Your task to perform on an android device: turn on notifications settings in the gmail app Image 0: 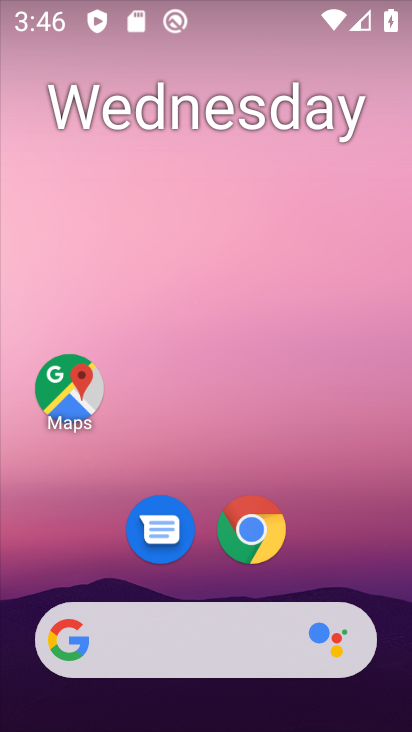
Step 0: drag from (350, 553) to (370, 176)
Your task to perform on an android device: turn on notifications settings in the gmail app Image 1: 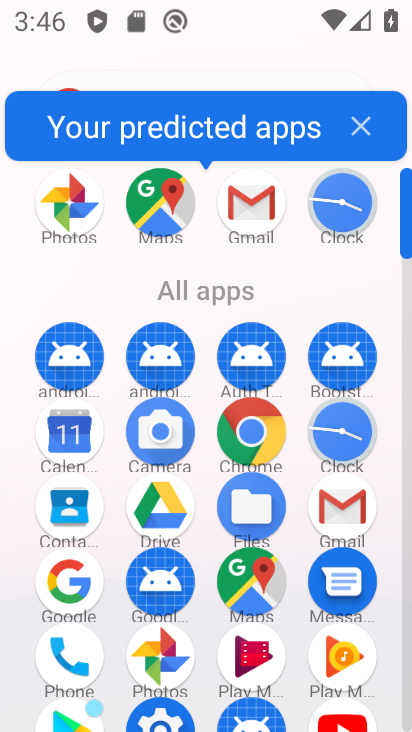
Step 1: click (345, 509)
Your task to perform on an android device: turn on notifications settings in the gmail app Image 2: 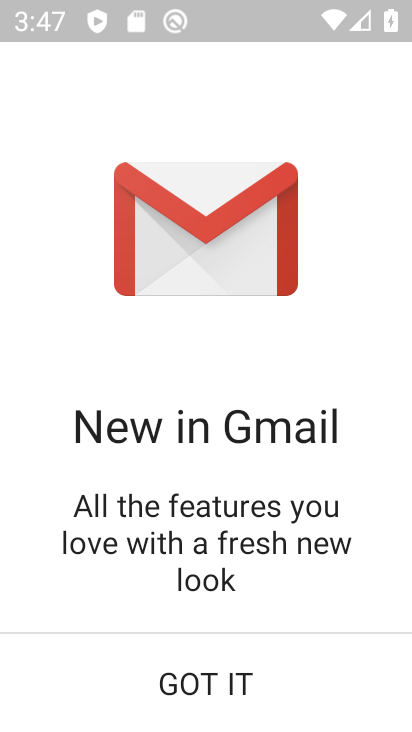
Step 2: click (242, 684)
Your task to perform on an android device: turn on notifications settings in the gmail app Image 3: 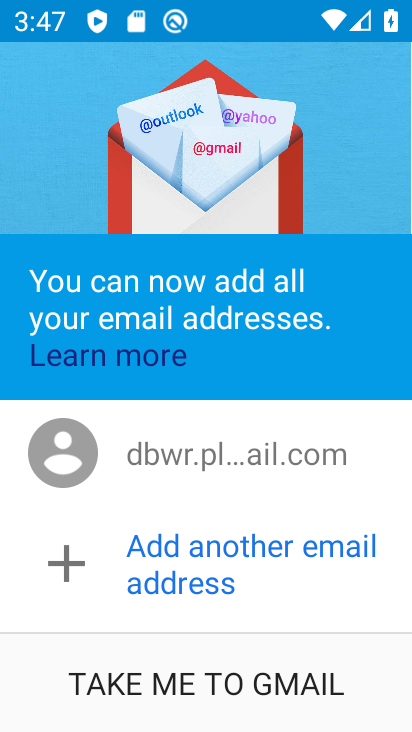
Step 3: click (238, 680)
Your task to perform on an android device: turn on notifications settings in the gmail app Image 4: 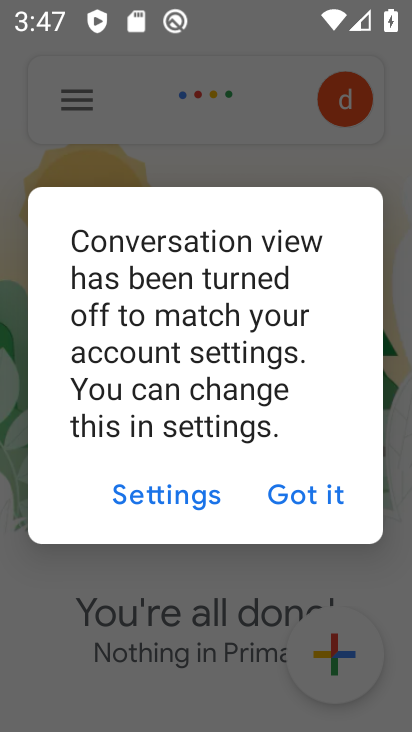
Step 4: click (327, 503)
Your task to perform on an android device: turn on notifications settings in the gmail app Image 5: 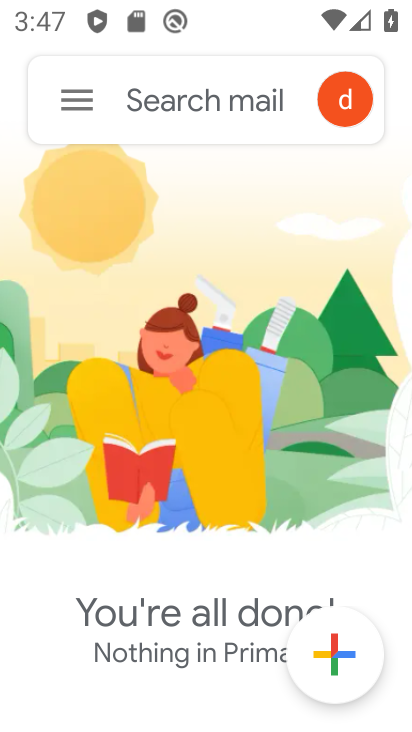
Step 5: click (77, 106)
Your task to perform on an android device: turn on notifications settings in the gmail app Image 6: 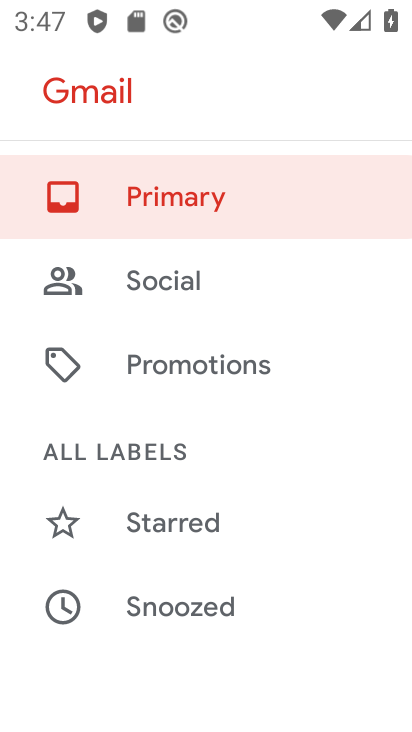
Step 6: drag from (131, 535) to (158, 202)
Your task to perform on an android device: turn on notifications settings in the gmail app Image 7: 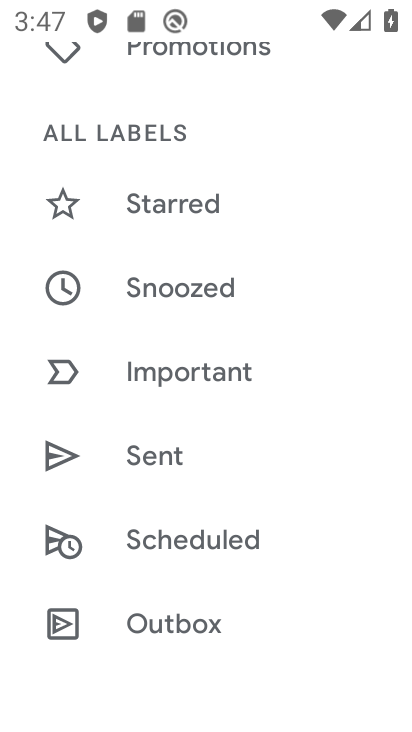
Step 7: drag from (176, 582) to (202, 248)
Your task to perform on an android device: turn on notifications settings in the gmail app Image 8: 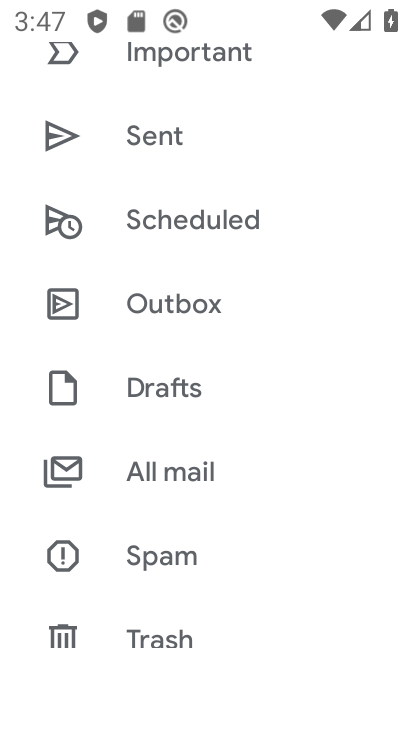
Step 8: drag from (198, 610) to (222, 270)
Your task to perform on an android device: turn on notifications settings in the gmail app Image 9: 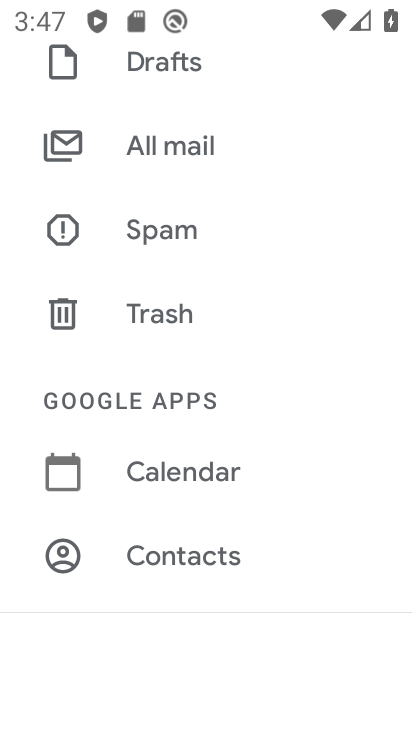
Step 9: drag from (193, 586) to (250, 214)
Your task to perform on an android device: turn on notifications settings in the gmail app Image 10: 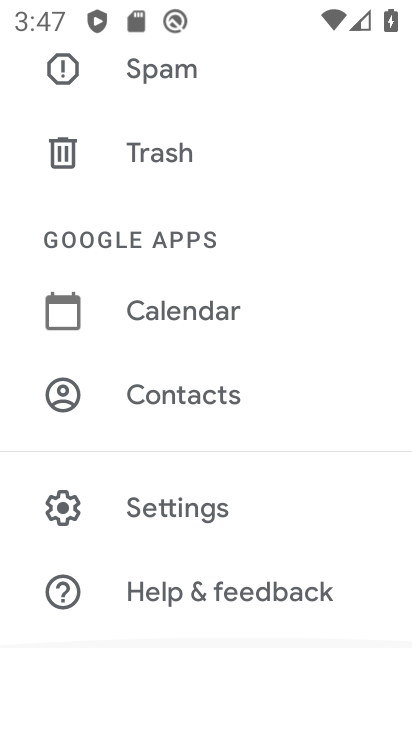
Step 10: click (182, 510)
Your task to perform on an android device: turn on notifications settings in the gmail app Image 11: 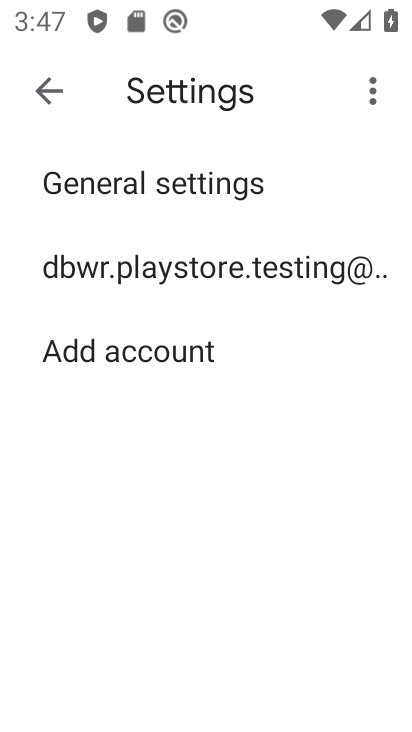
Step 11: click (190, 262)
Your task to perform on an android device: turn on notifications settings in the gmail app Image 12: 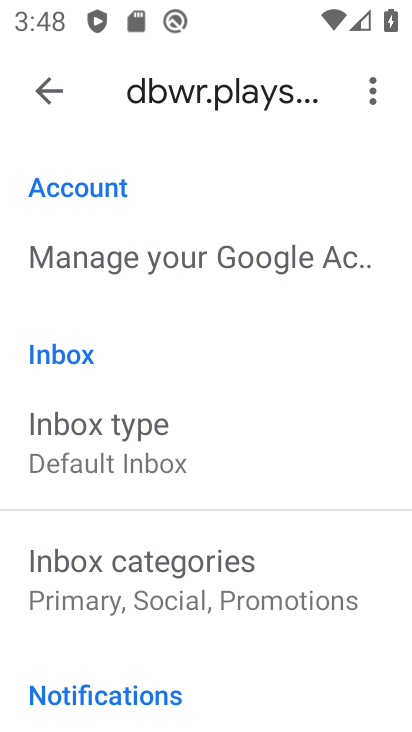
Step 12: drag from (168, 608) to (173, 440)
Your task to perform on an android device: turn on notifications settings in the gmail app Image 13: 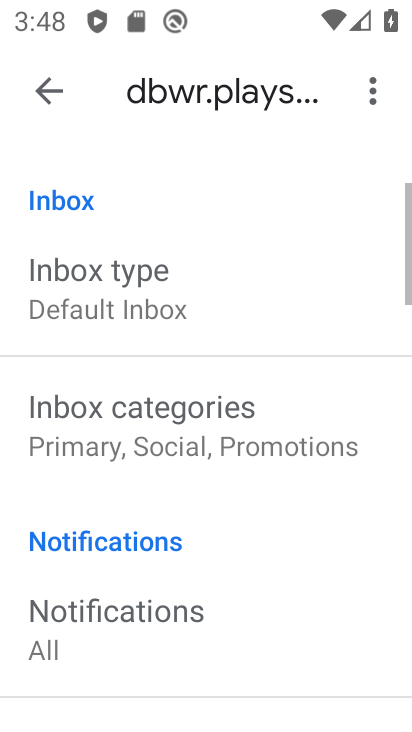
Step 13: click (122, 627)
Your task to perform on an android device: turn on notifications settings in the gmail app Image 14: 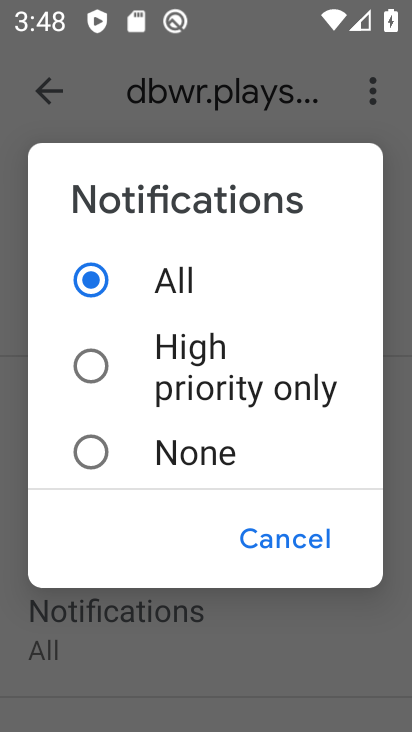
Step 14: task complete